Your task to perform on an android device: Go to wifi settings Image 0: 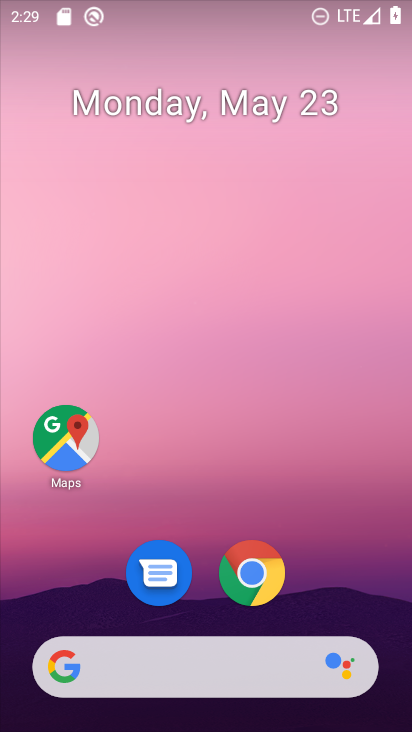
Step 0: drag from (310, 458) to (328, 147)
Your task to perform on an android device: Go to wifi settings Image 1: 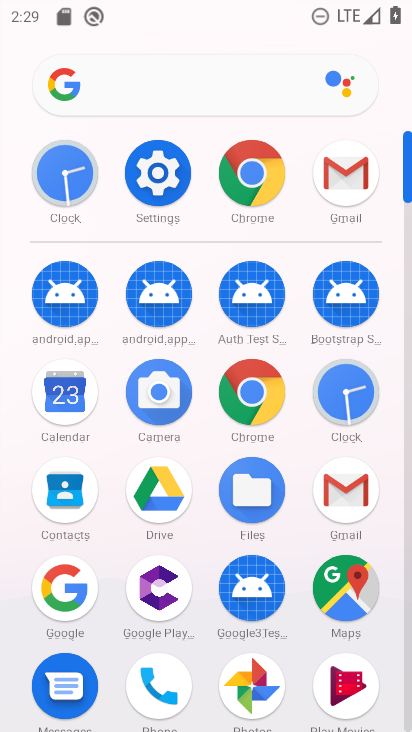
Step 1: click (139, 174)
Your task to perform on an android device: Go to wifi settings Image 2: 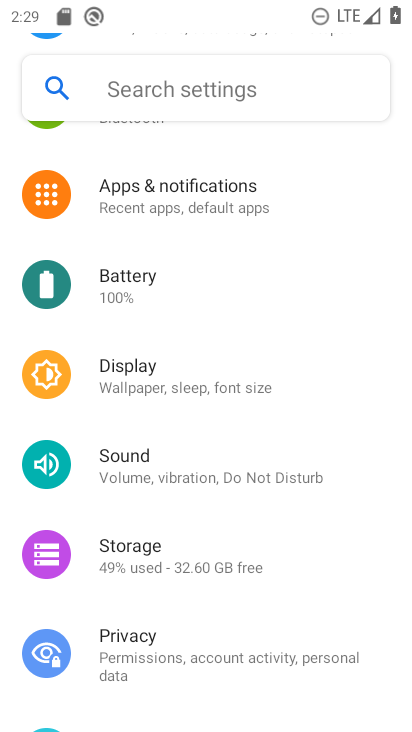
Step 2: drag from (139, 174) to (86, 686)
Your task to perform on an android device: Go to wifi settings Image 3: 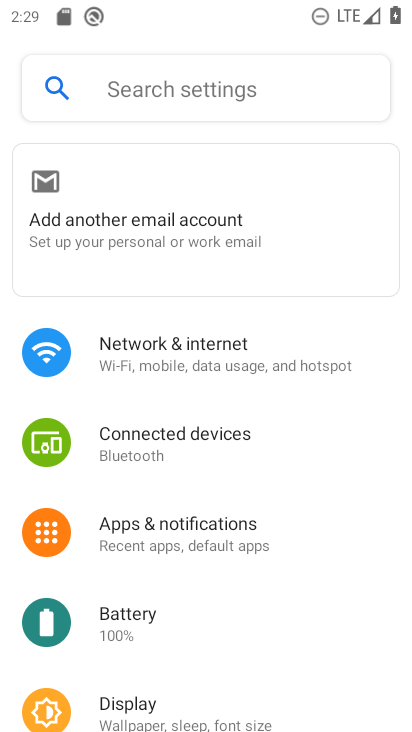
Step 3: click (155, 368)
Your task to perform on an android device: Go to wifi settings Image 4: 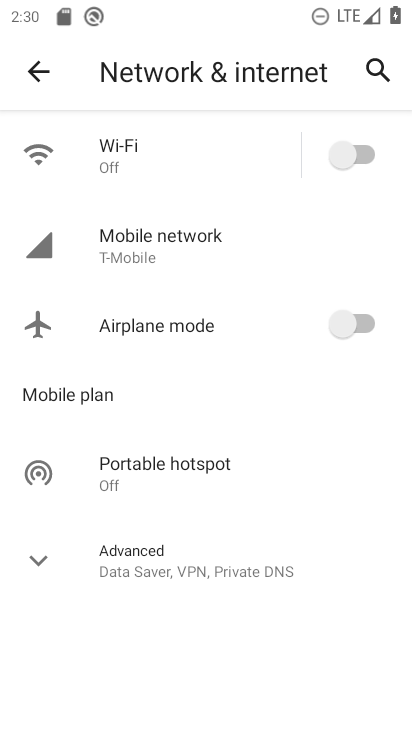
Step 4: click (263, 155)
Your task to perform on an android device: Go to wifi settings Image 5: 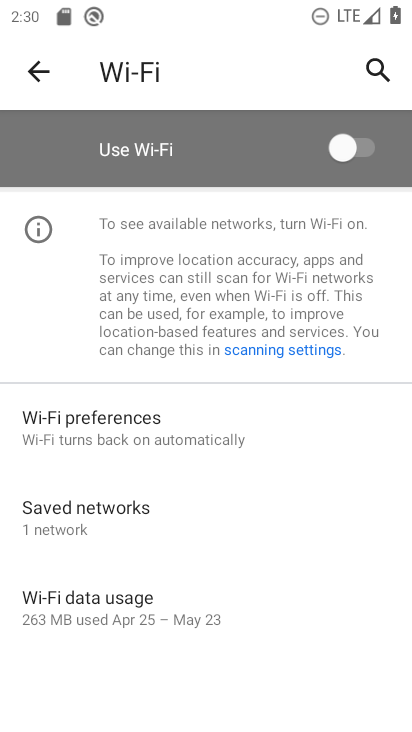
Step 5: click (372, 155)
Your task to perform on an android device: Go to wifi settings Image 6: 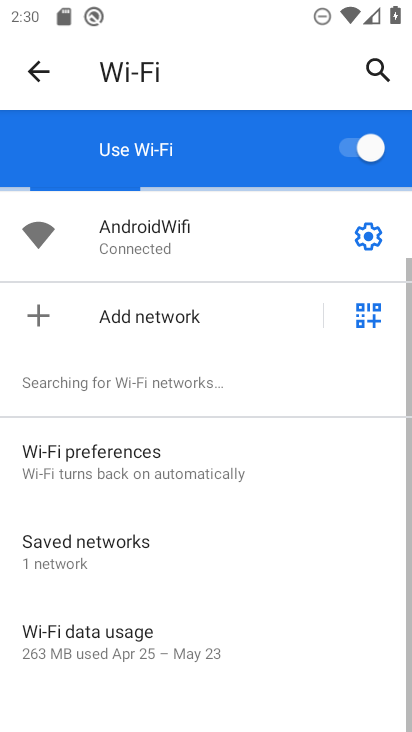
Step 6: click (370, 245)
Your task to perform on an android device: Go to wifi settings Image 7: 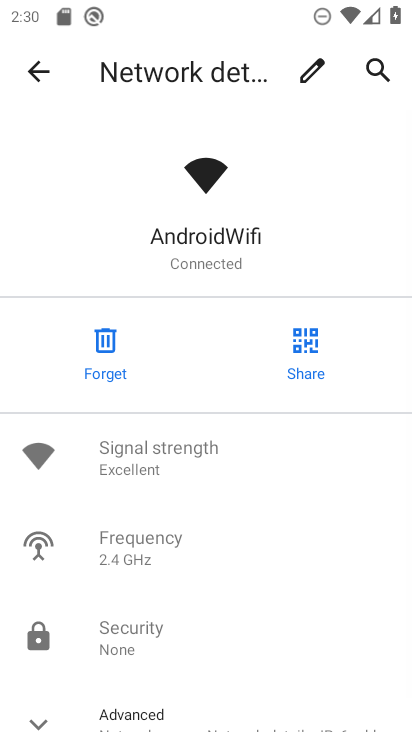
Step 7: task complete